Your task to perform on an android device: turn notification dots on Image 0: 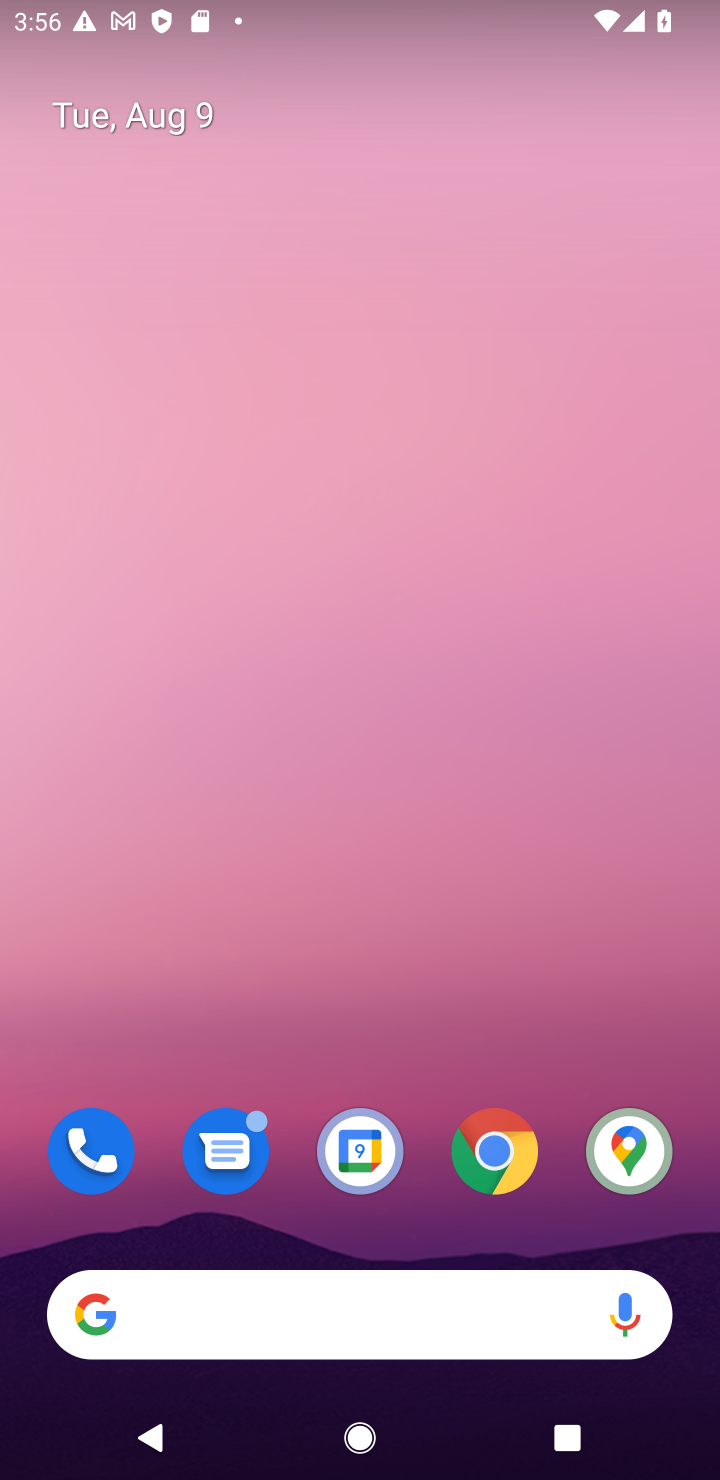
Step 0: drag from (434, 1251) to (411, 158)
Your task to perform on an android device: turn notification dots on Image 1: 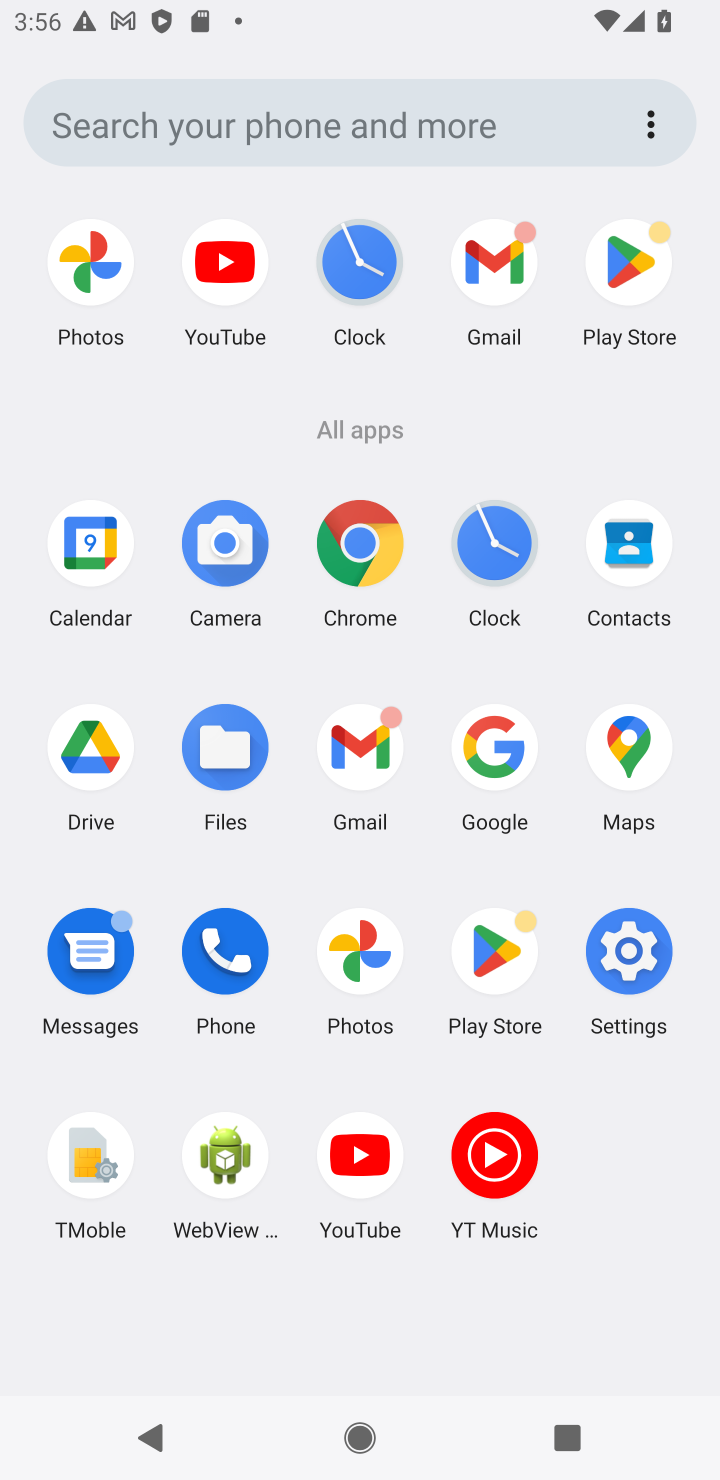
Step 1: click (620, 936)
Your task to perform on an android device: turn notification dots on Image 2: 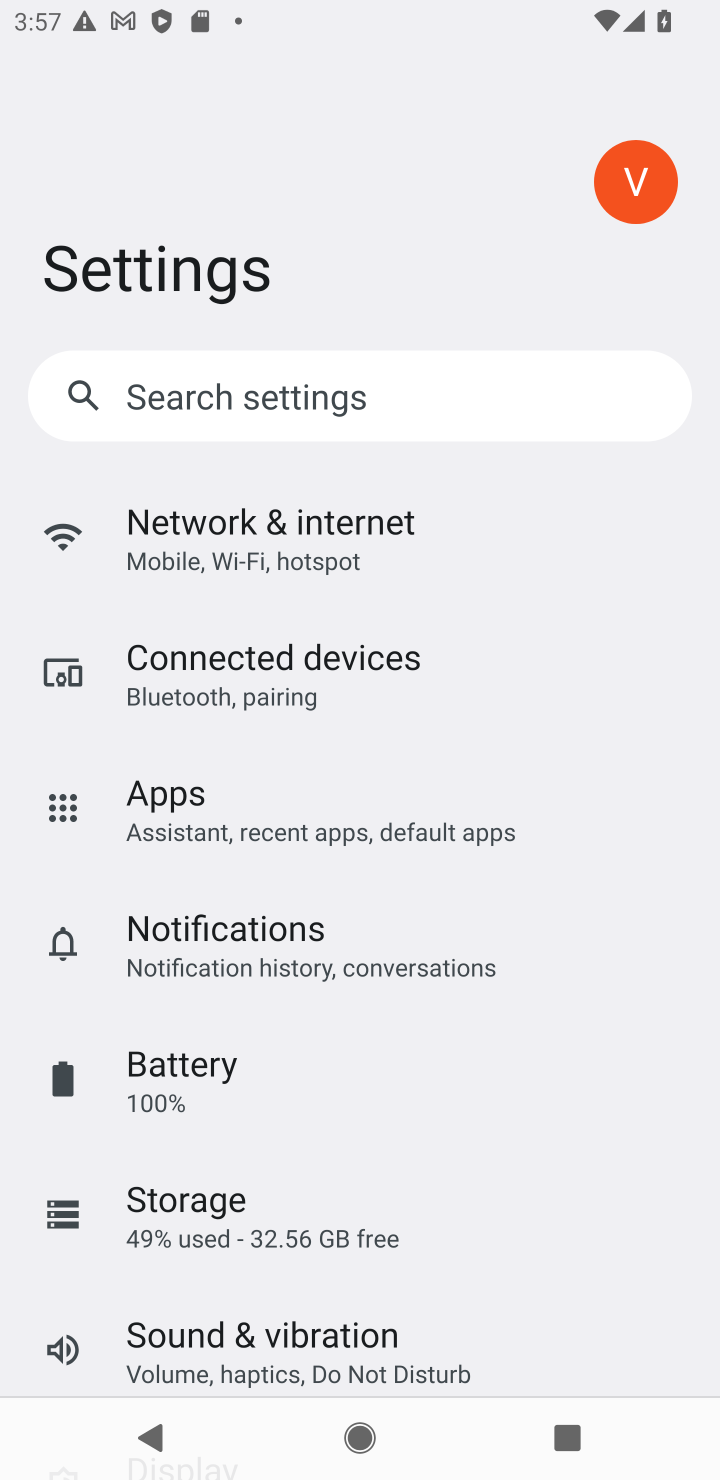
Step 2: click (211, 954)
Your task to perform on an android device: turn notification dots on Image 3: 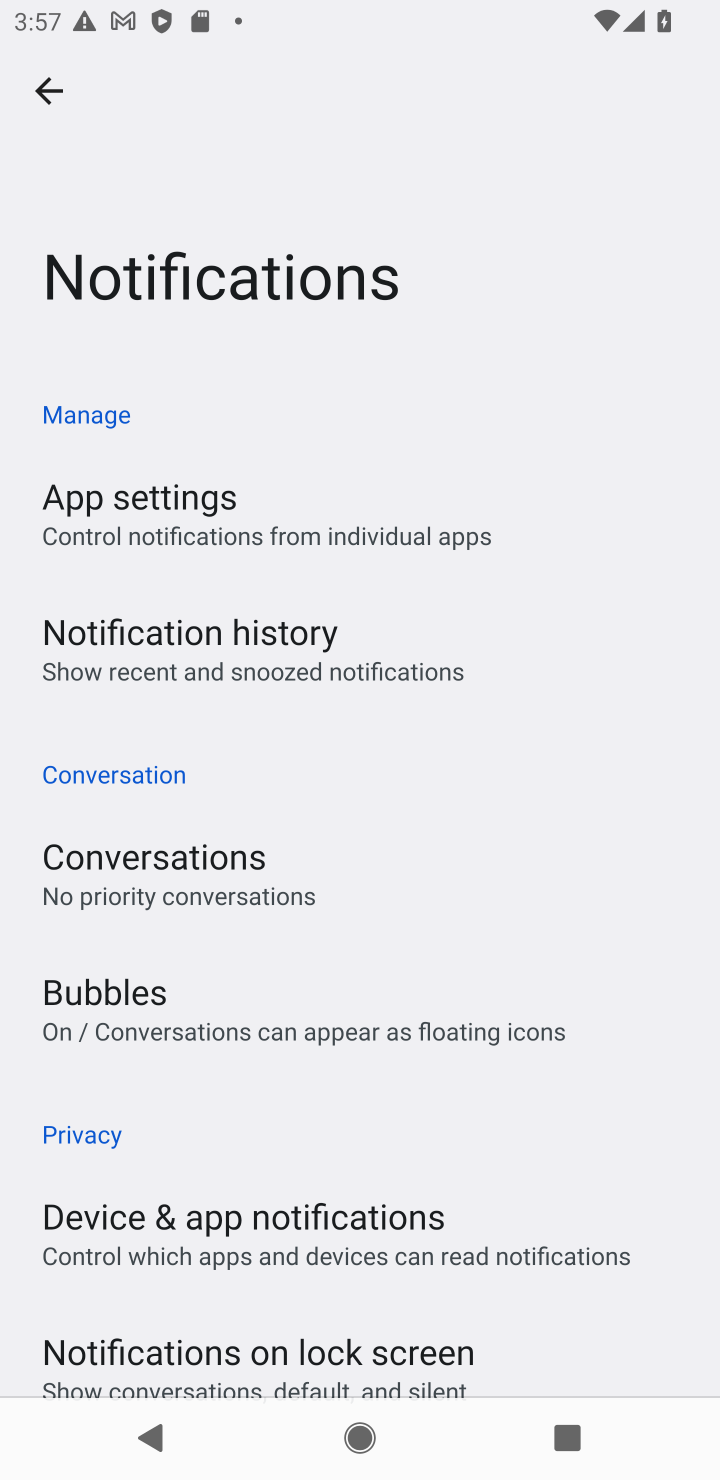
Step 3: task complete